Your task to perform on an android device: toggle data saver in the chrome app Image 0: 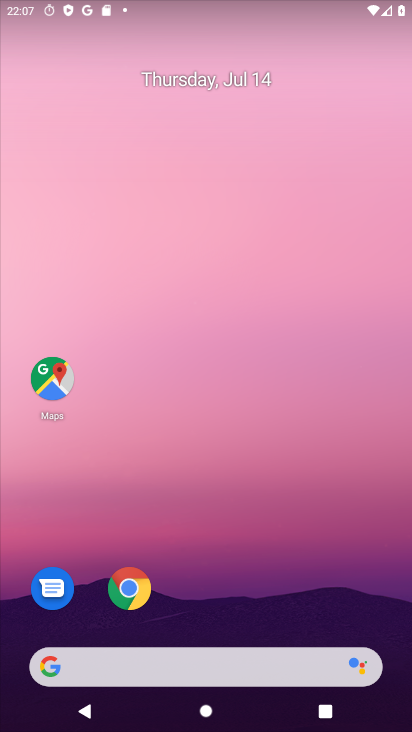
Step 0: click (129, 586)
Your task to perform on an android device: toggle data saver in the chrome app Image 1: 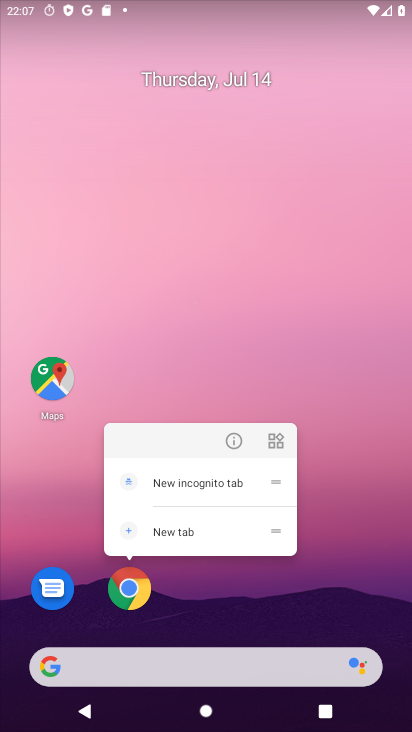
Step 1: click (134, 591)
Your task to perform on an android device: toggle data saver in the chrome app Image 2: 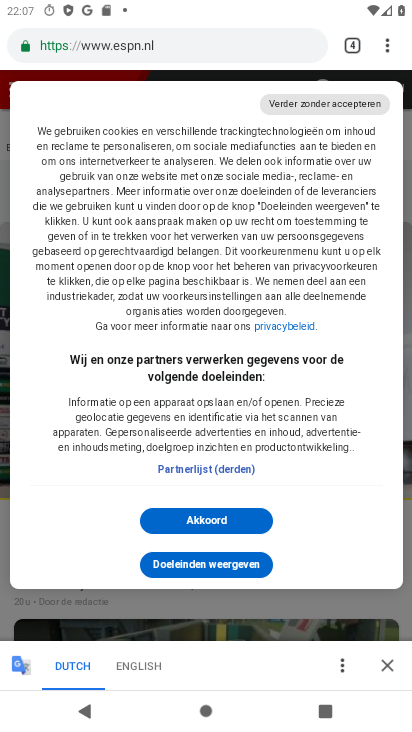
Step 2: click (383, 39)
Your task to perform on an android device: toggle data saver in the chrome app Image 3: 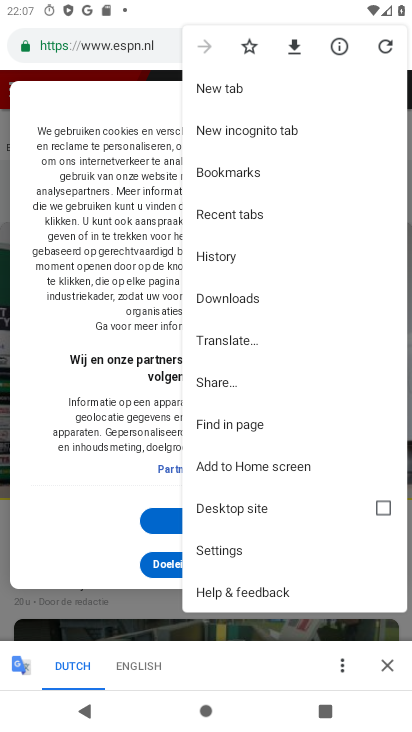
Step 3: click (226, 546)
Your task to perform on an android device: toggle data saver in the chrome app Image 4: 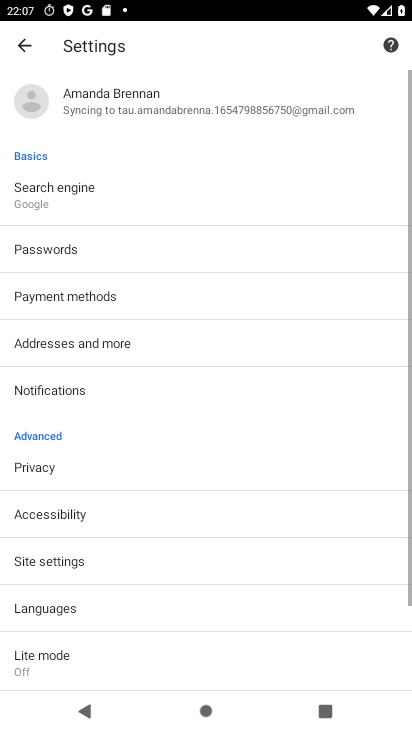
Step 4: drag from (82, 592) to (105, 293)
Your task to perform on an android device: toggle data saver in the chrome app Image 5: 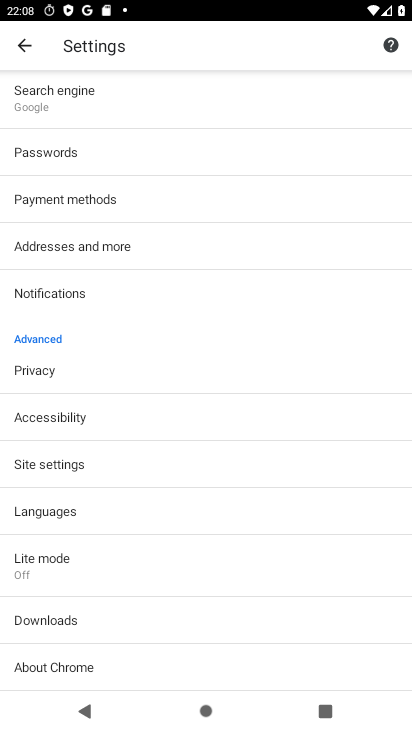
Step 5: drag from (112, 543) to (150, 169)
Your task to perform on an android device: toggle data saver in the chrome app Image 6: 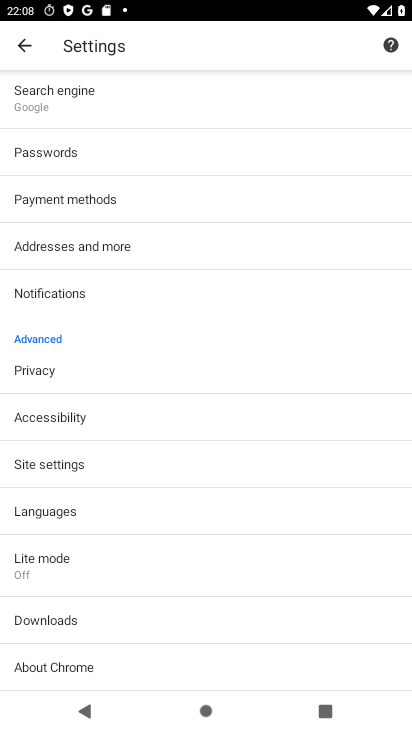
Step 6: click (71, 587)
Your task to perform on an android device: toggle data saver in the chrome app Image 7: 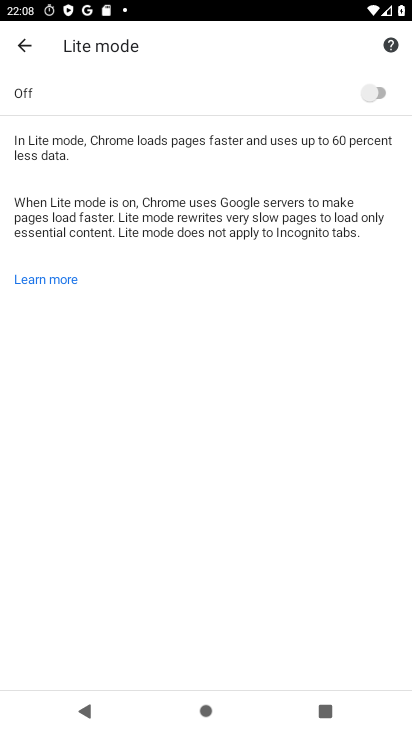
Step 7: click (383, 88)
Your task to perform on an android device: toggle data saver in the chrome app Image 8: 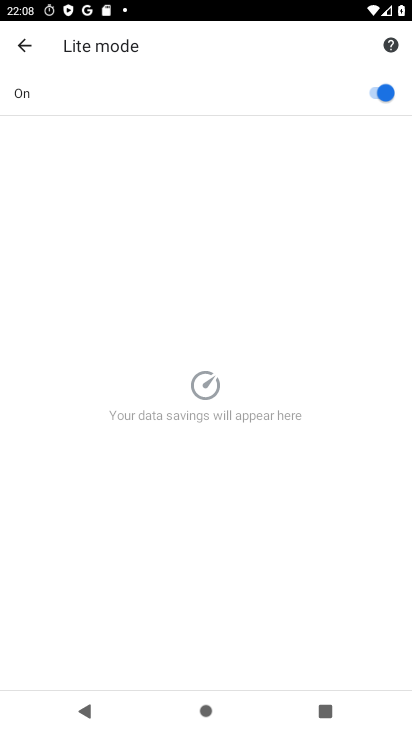
Step 8: task complete